Your task to perform on an android device: check google app version Image 0: 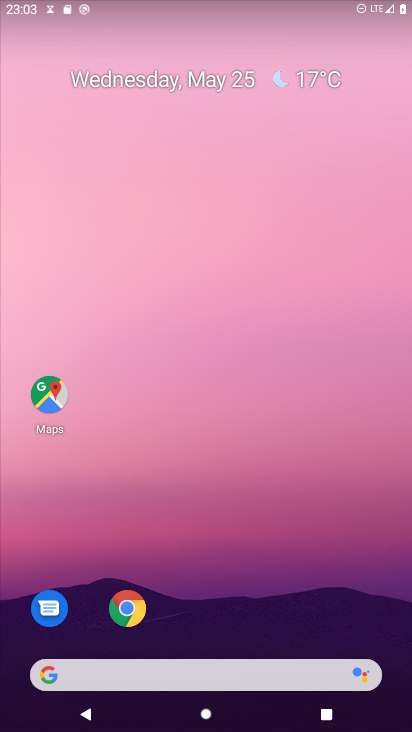
Step 0: drag from (291, 447) to (165, 1)
Your task to perform on an android device: check google app version Image 1: 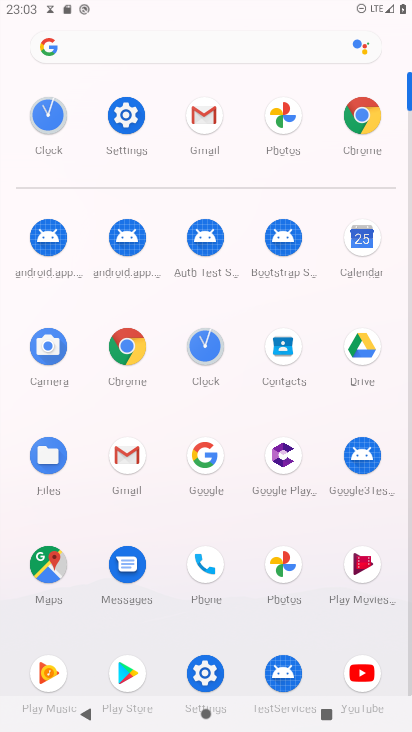
Step 1: click (211, 459)
Your task to perform on an android device: check google app version Image 2: 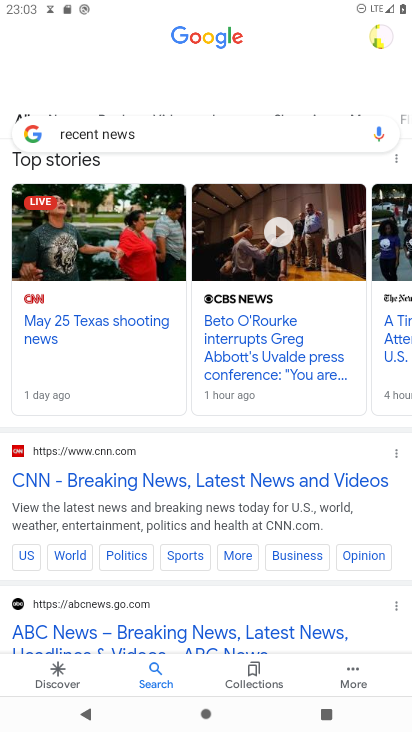
Step 2: click (347, 670)
Your task to perform on an android device: check google app version Image 3: 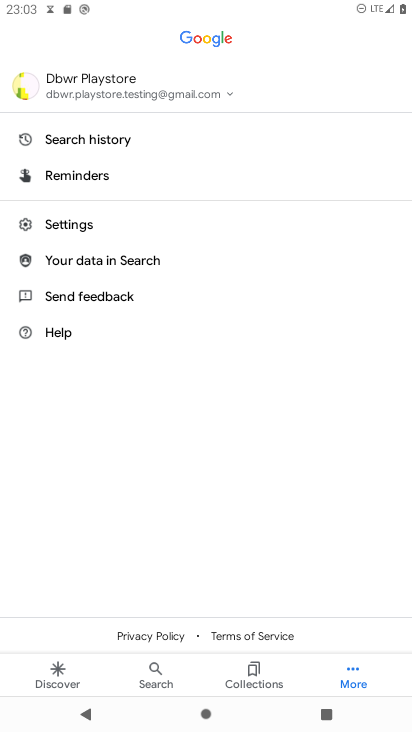
Step 3: click (64, 230)
Your task to perform on an android device: check google app version Image 4: 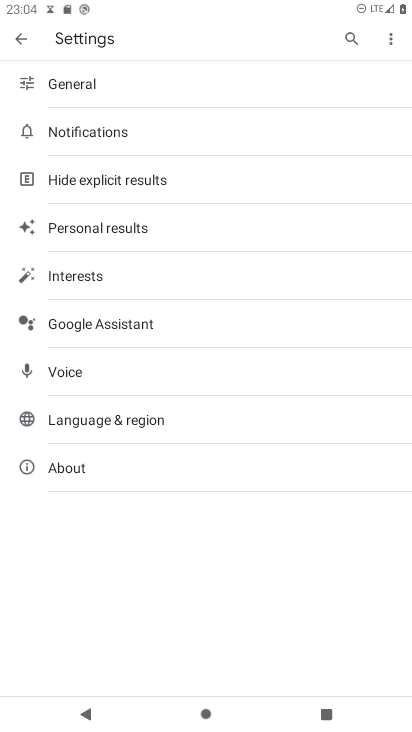
Step 4: click (99, 457)
Your task to perform on an android device: check google app version Image 5: 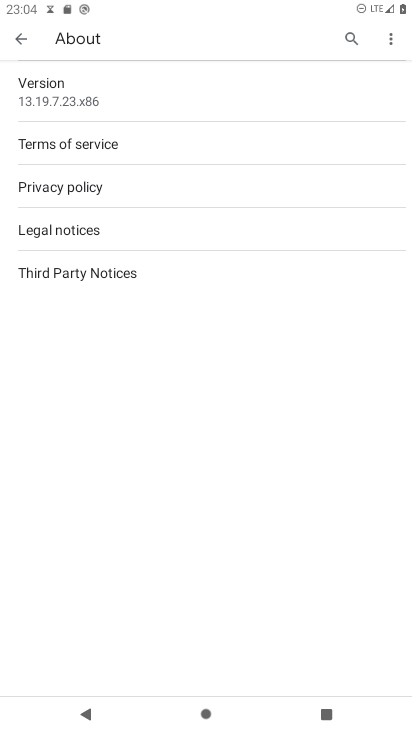
Step 5: task complete